Your task to perform on an android device: Open Yahoo.com Image 0: 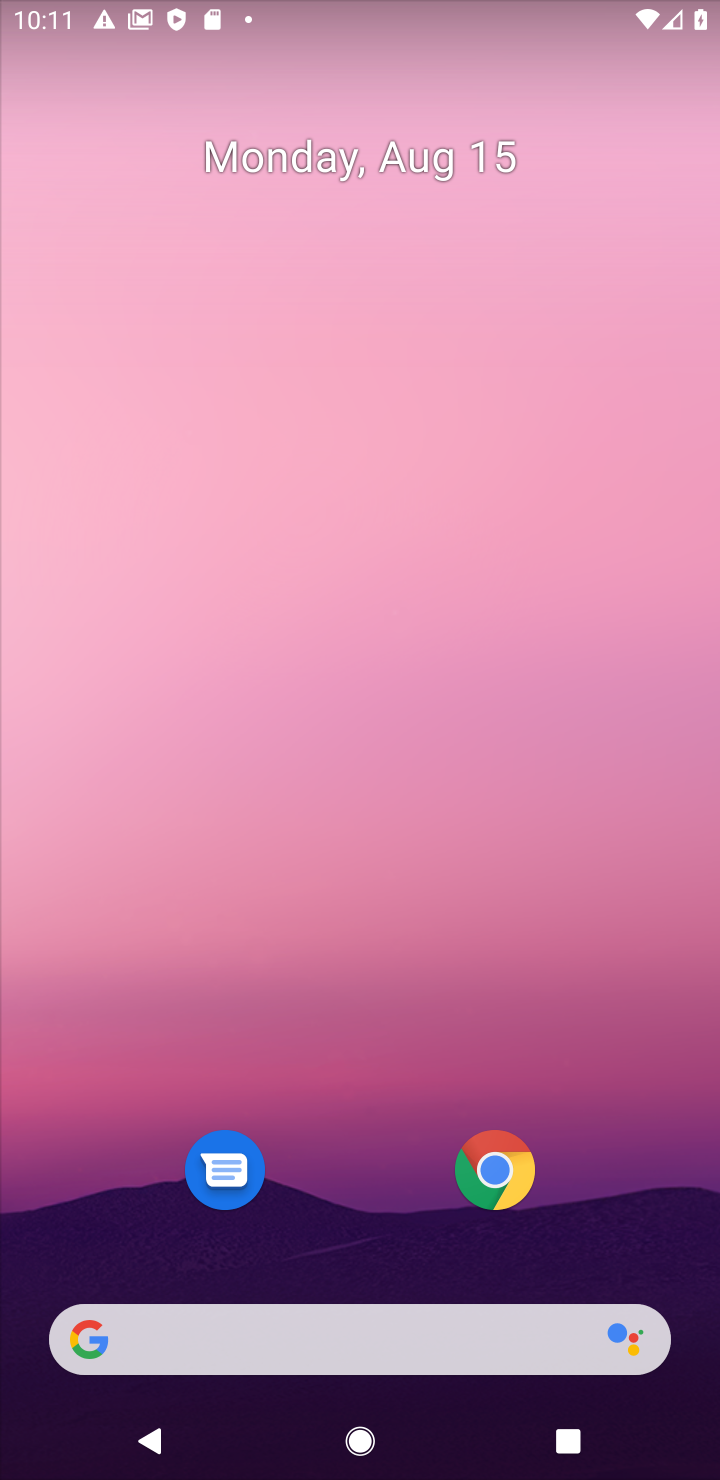
Step 0: press home button
Your task to perform on an android device: Open Yahoo.com Image 1: 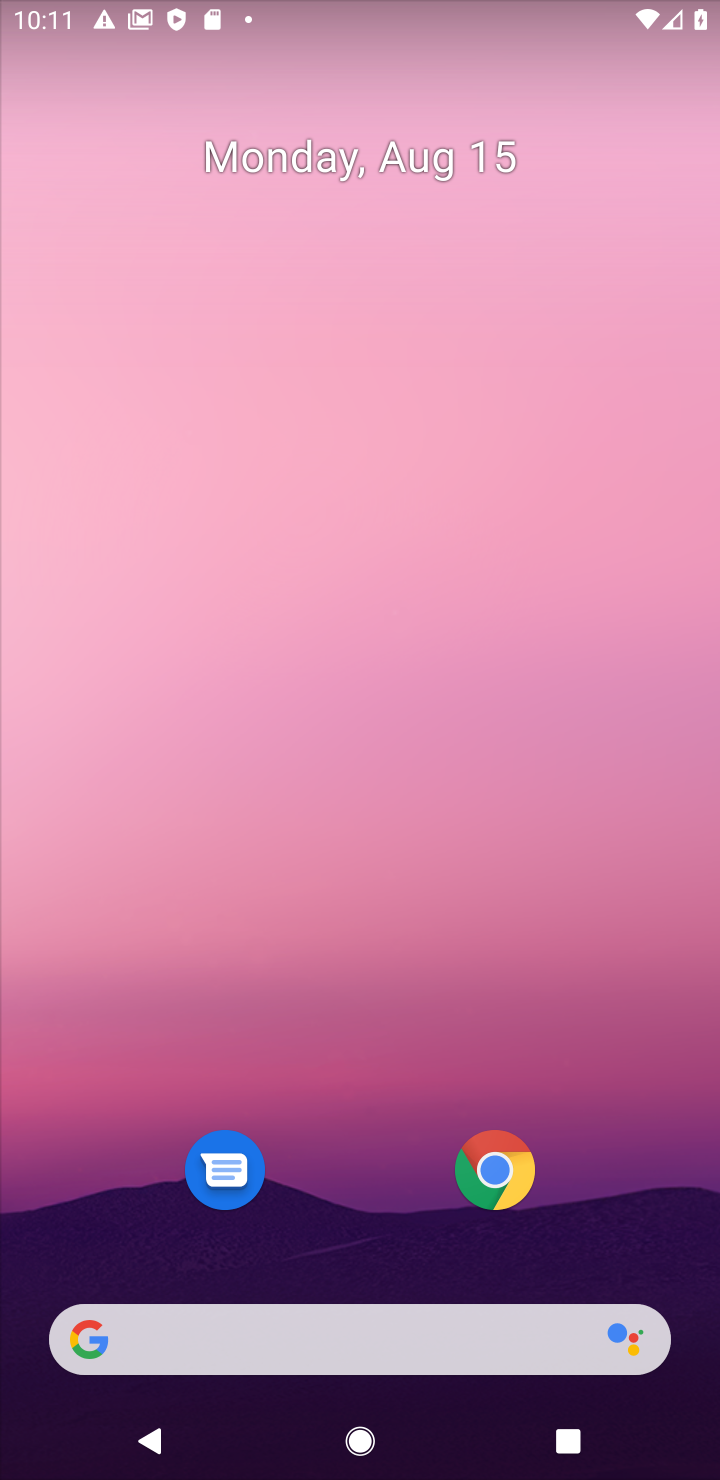
Step 1: drag from (363, 1245) to (431, 49)
Your task to perform on an android device: Open Yahoo.com Image 2: 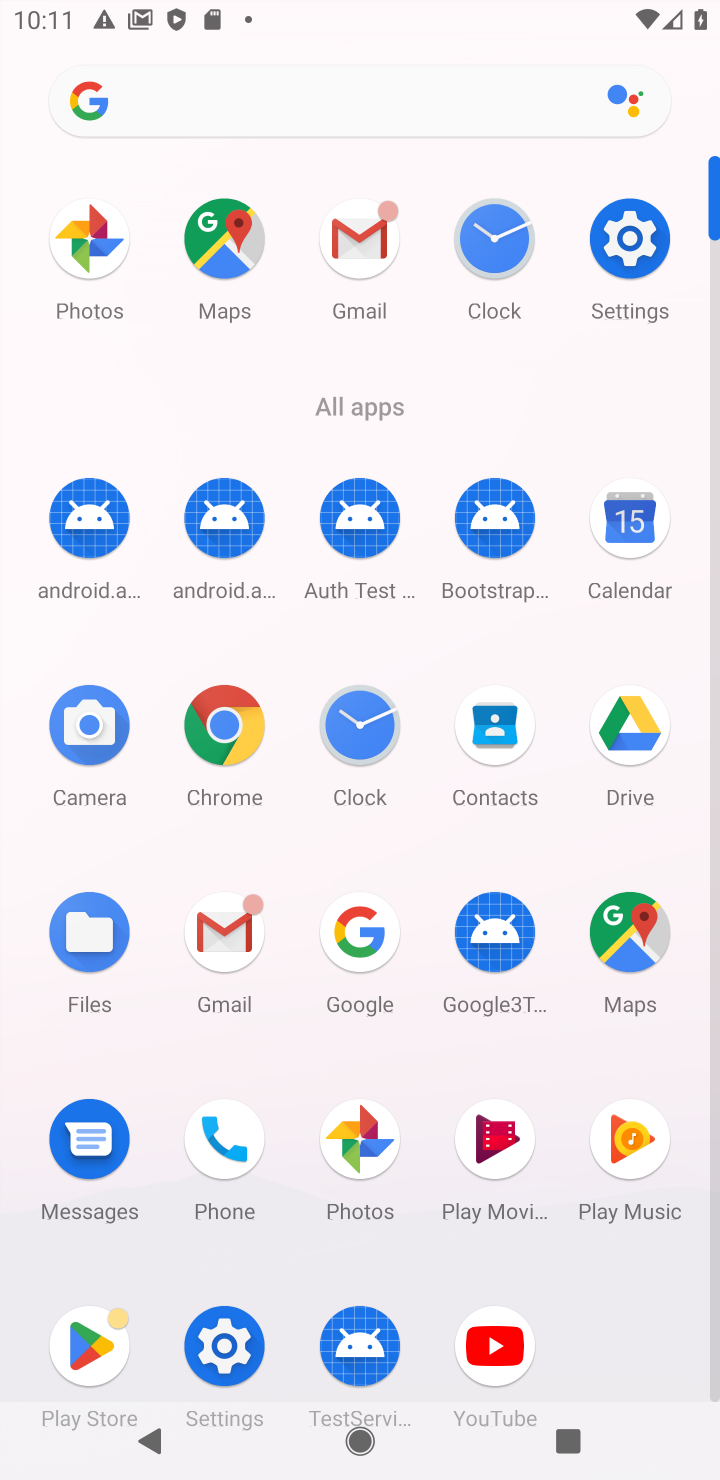
Step 2: click (219, 714)
Your task to perform on an android device: Open Yahoo.com Image 3: 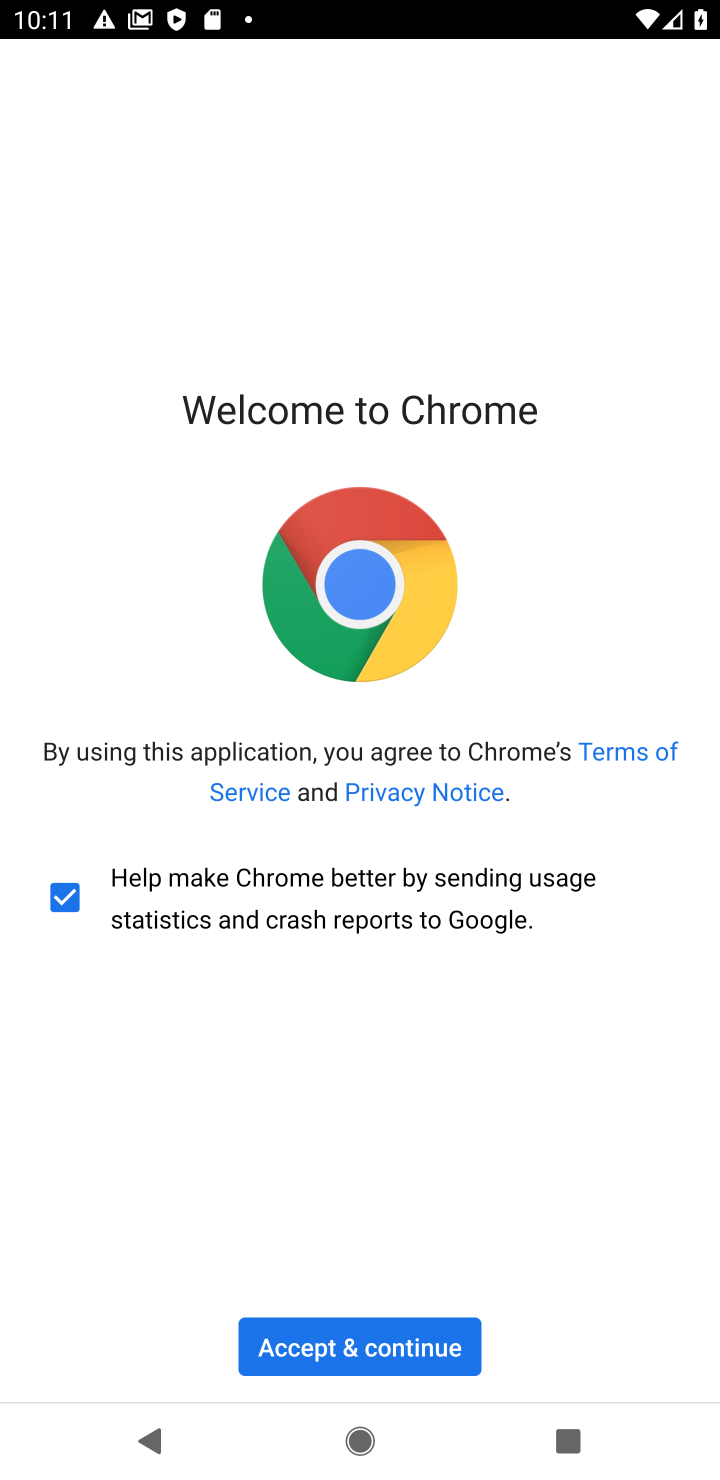
Step 3: click (348, 1332)
Your task to perform on an android device: Open Yahoo.com Image 4: 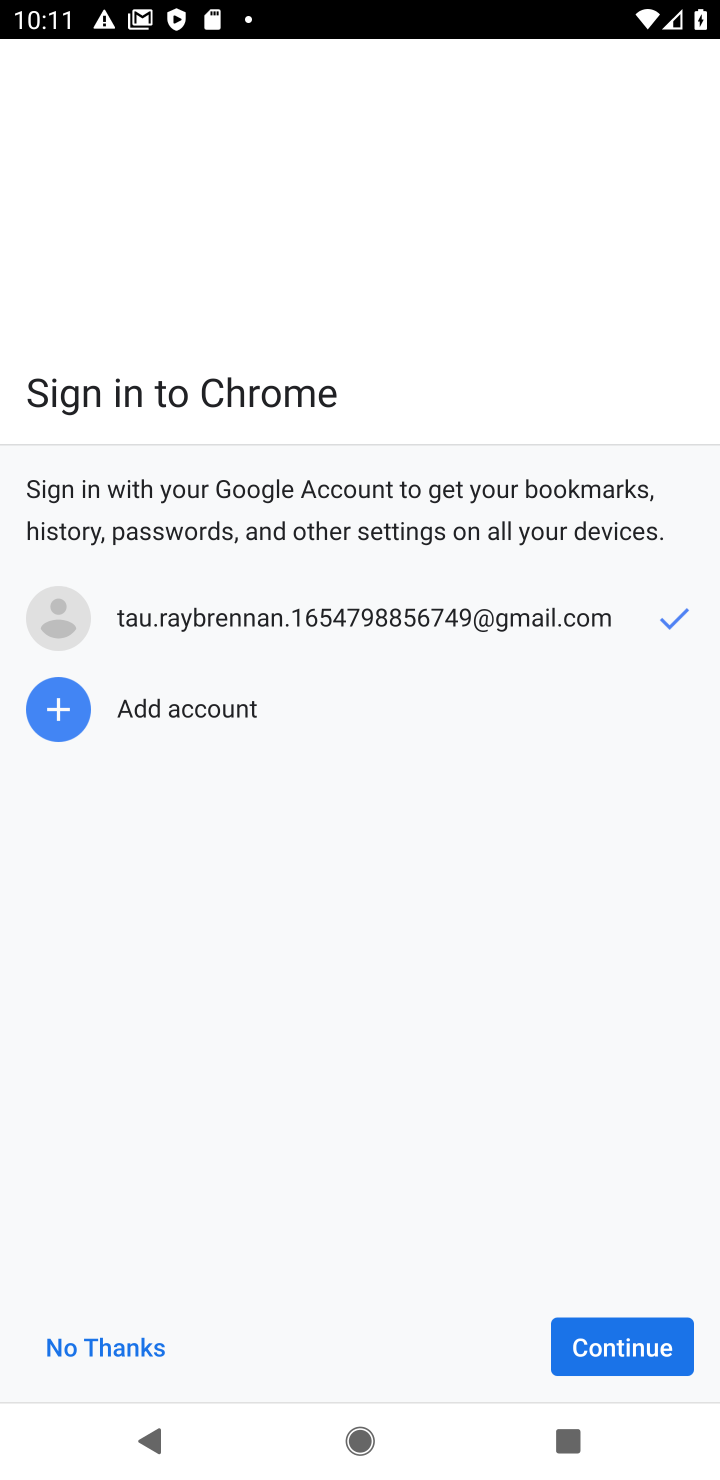
Step 4: click (628, 1338)
Your task to perform on an android device: Open Yahoo.com Image 5: 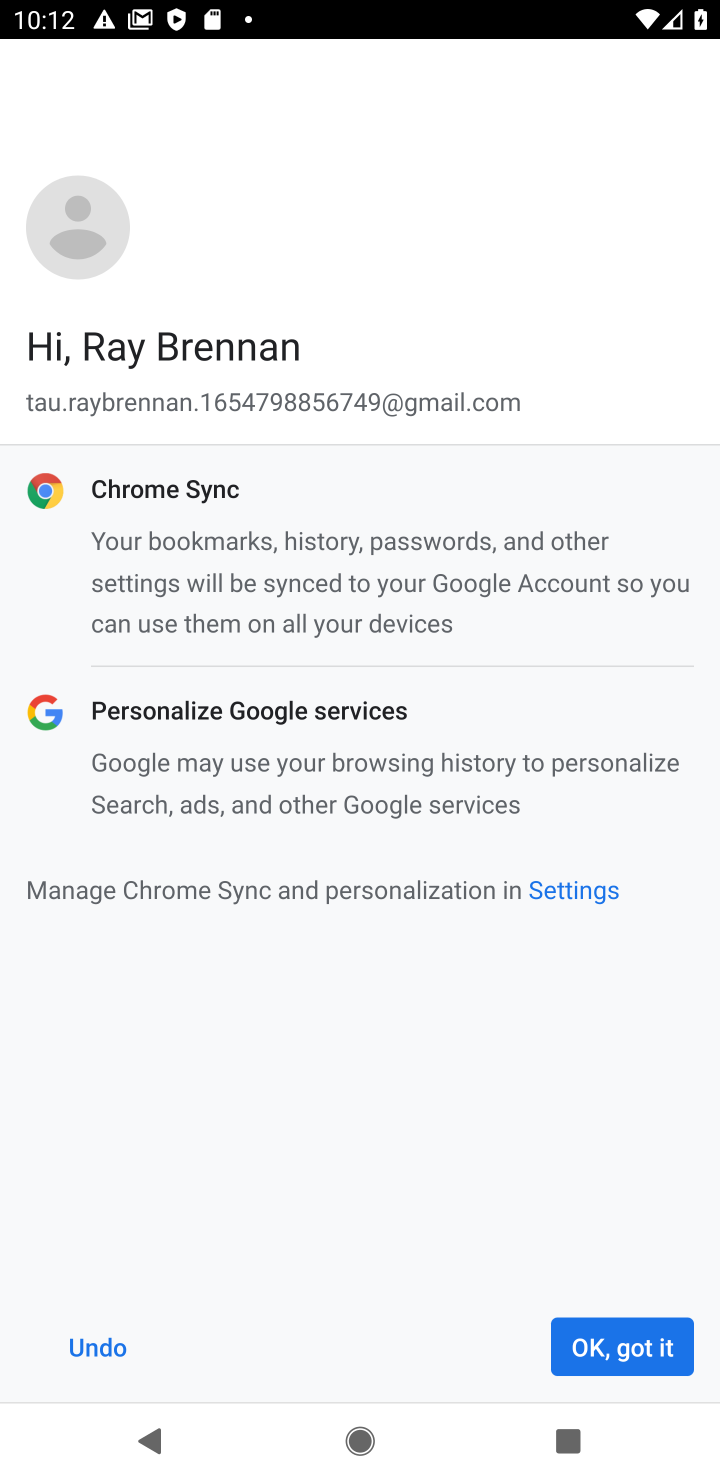
Step 5: click (628, 1338)
Your task to perform on an android device: Open Yahoo.com Image 6: 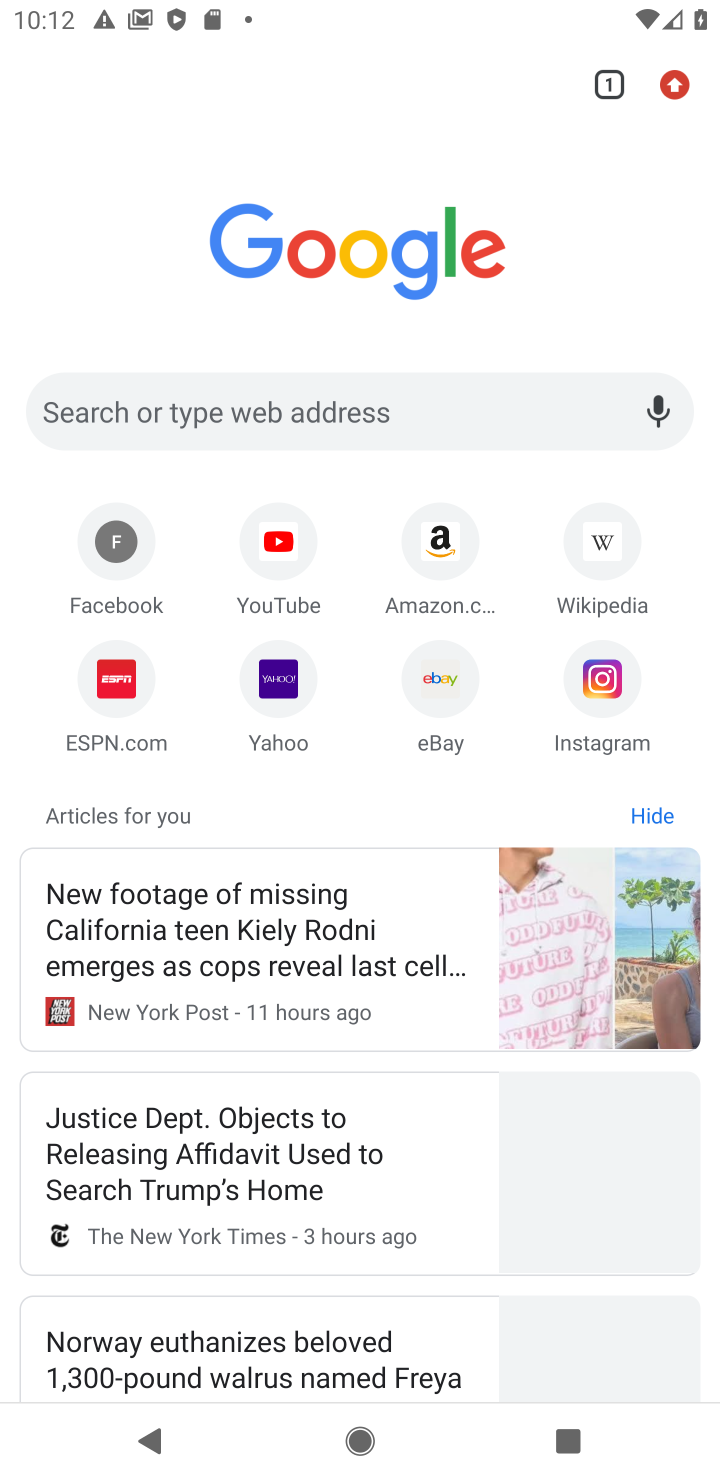
Step 6: click (279, 677)
Your task to perform on an android device: Open Yahoo.com Image 7: 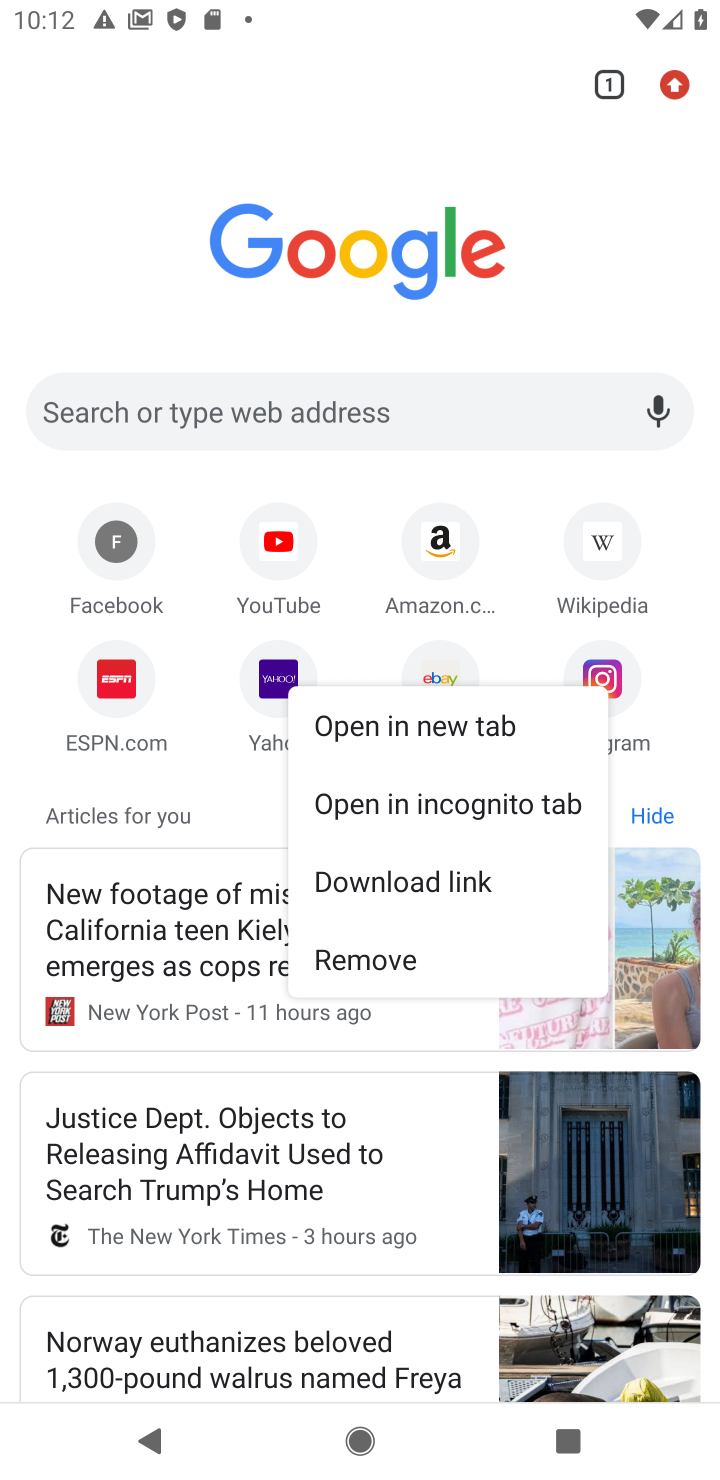
Step 7: click (265, 682)
Your task to perform on an android device: Open Yahoo.com Image 8: 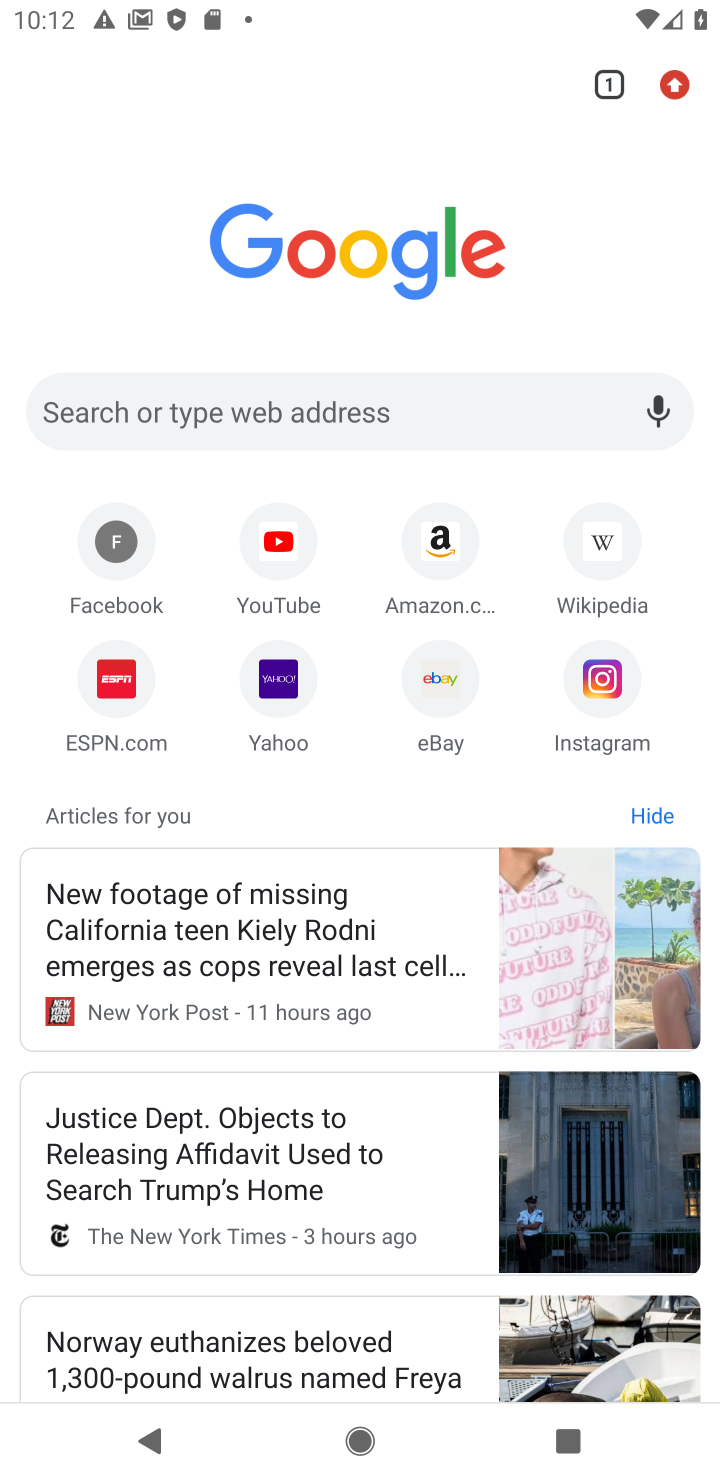
Step 8: click (272, 677)
Your task to perform on an android device: Open Yahoo.com Image 9: 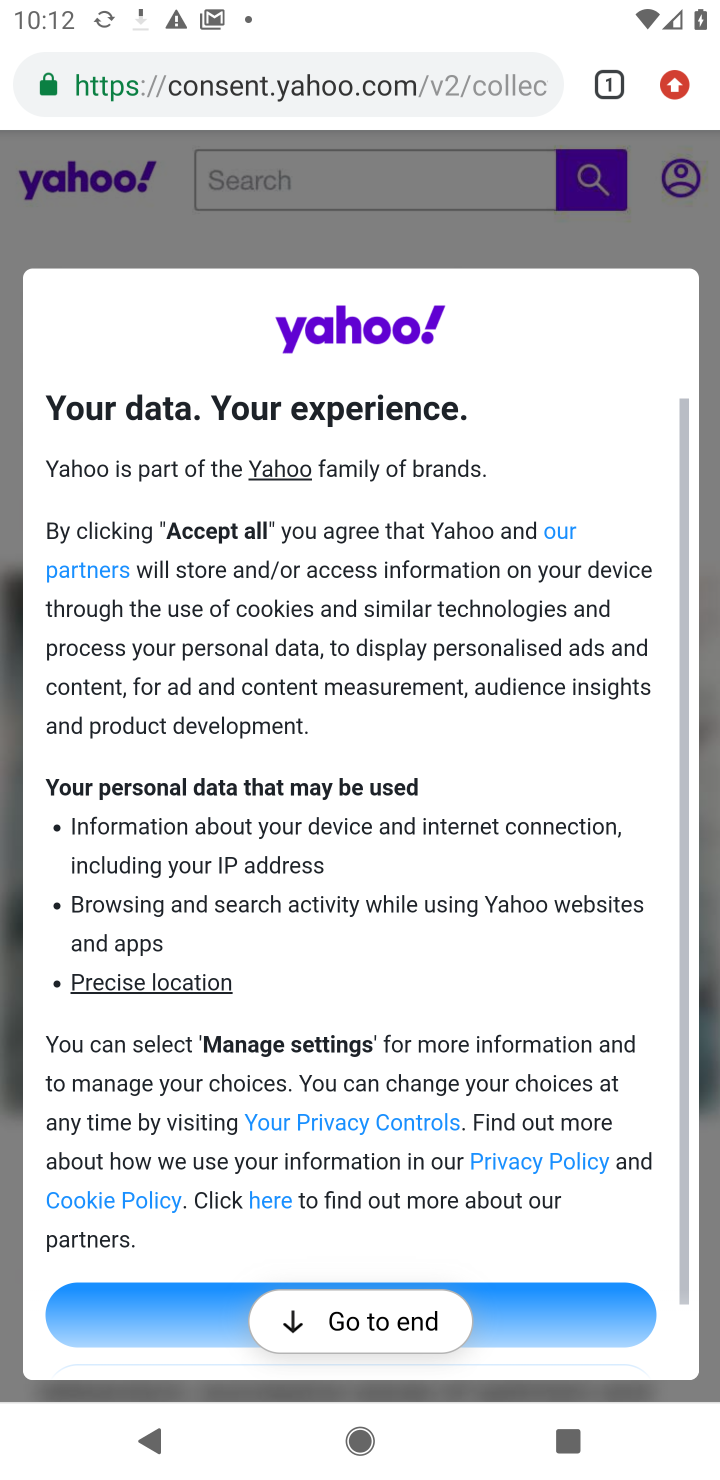
Step 9: click (361, 1320)
Your task to perform on an android device: Open Yahoo.com Image 10: 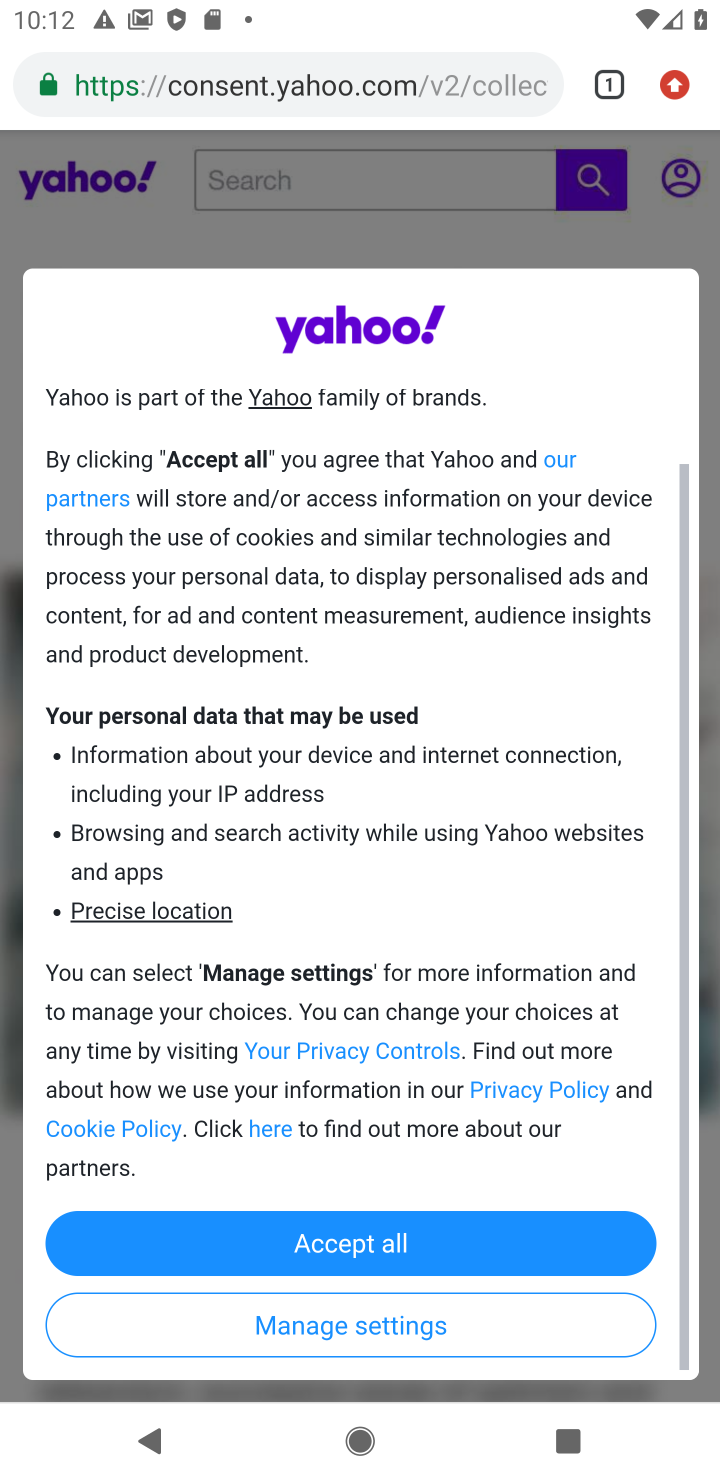
Step 10: click (351, 1242)
Your task to perform on an android device: Open Yahoo.com Image 11: 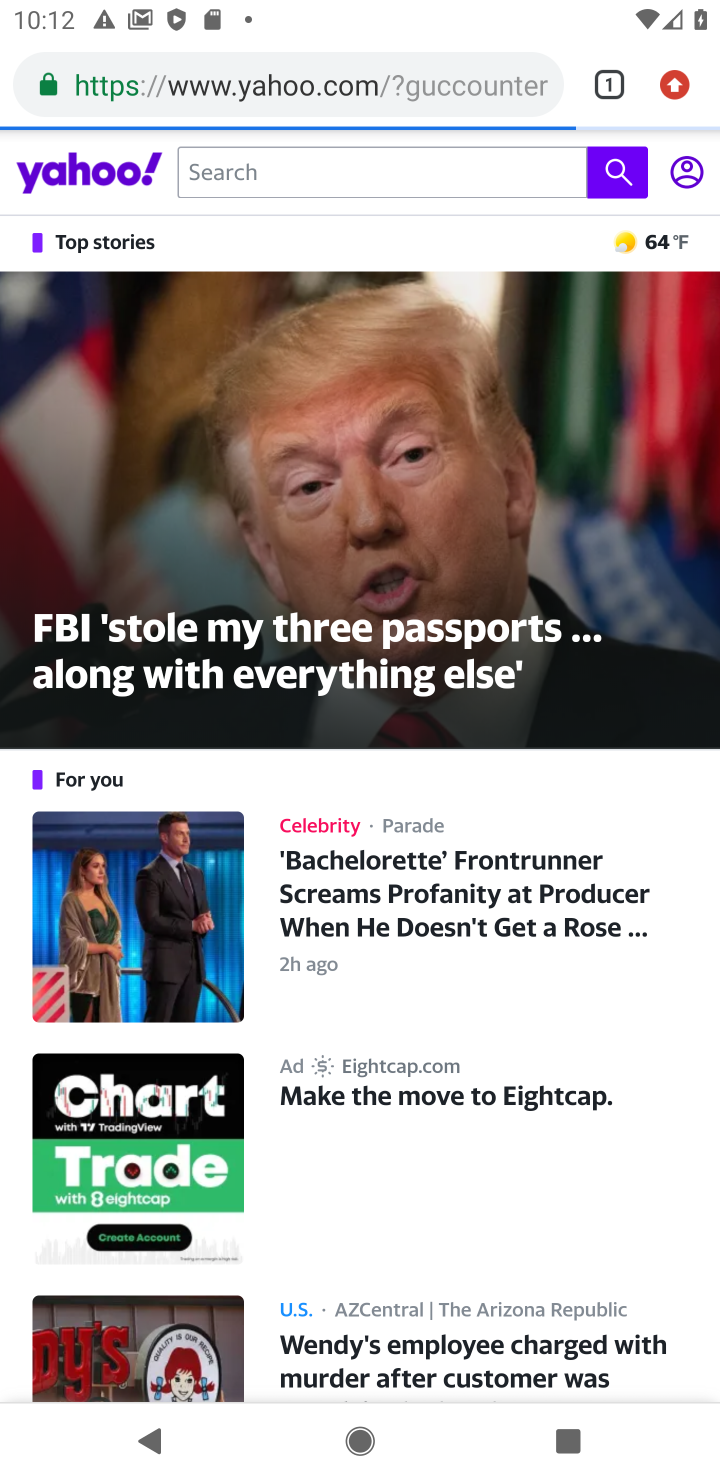
Step 11: task complete